Your task to perform on an android device: Go to network settings Image 0: 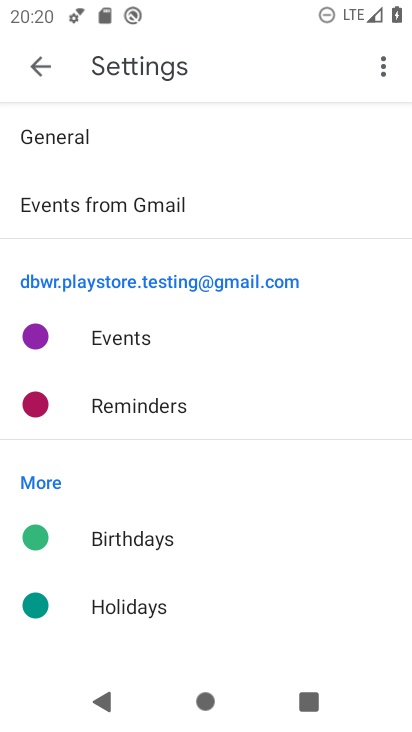
Step 0: press home button
Your task to perform on an android device: Go to network settings Image 1: 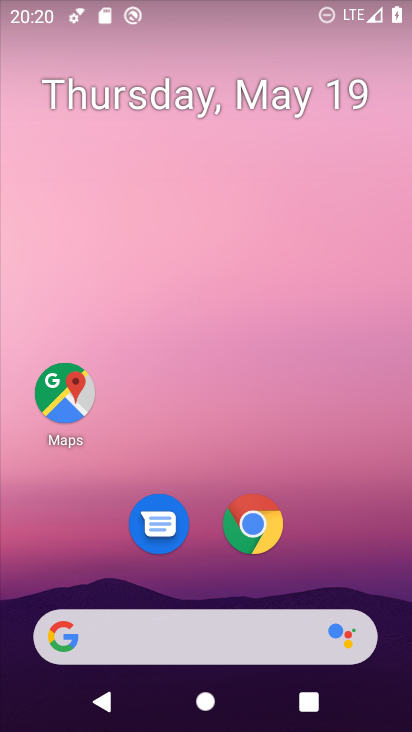
Step 1: drag from (323, 554) to (367, 83)
Your task to perform on an android device: Go to network settings Image 2: 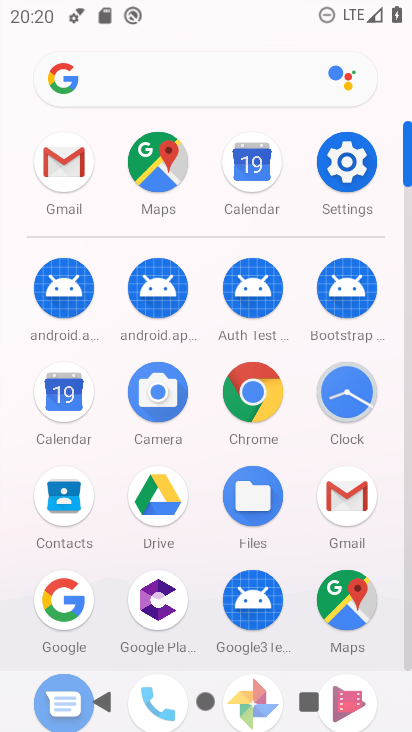
Step 2: click (347, 155)
Your task to perform on an android device: Go to network settings Image 3: 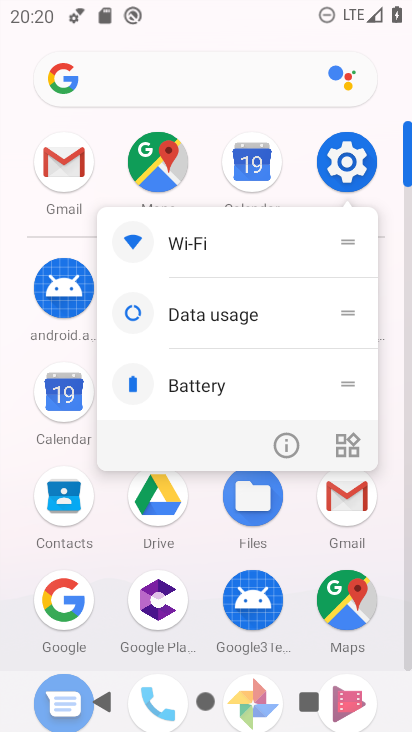
Step 3: click (347, 153)
Your task to perform on an android device: Go to network settings Image 4: 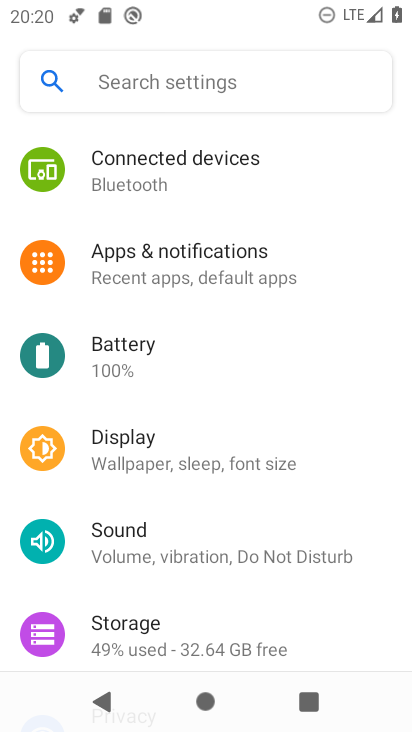
Step 4: drag from (206, 325) to (188, 628)
Your task to perform on an android device: Go to network settings Image 5: 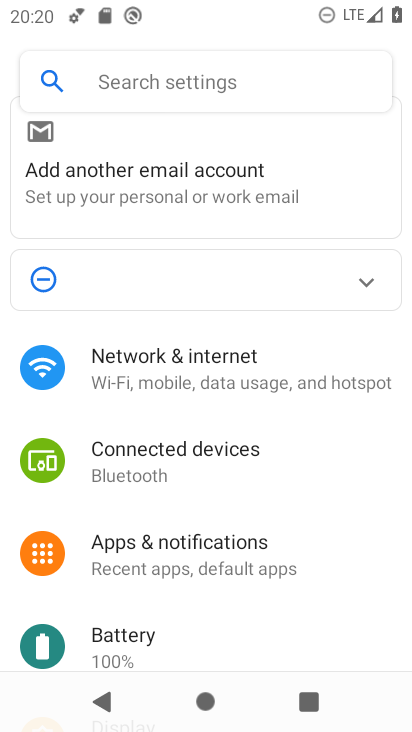
Step 5: click (191, 375)
Your task to perform on an android device: Go to network settings Image 6: 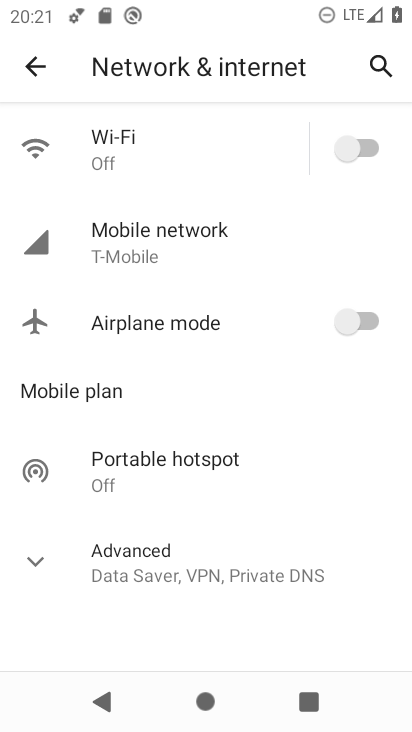
Step 6: click (33, 559)
Your task to perform on an android device: Go to network settings Image 7: 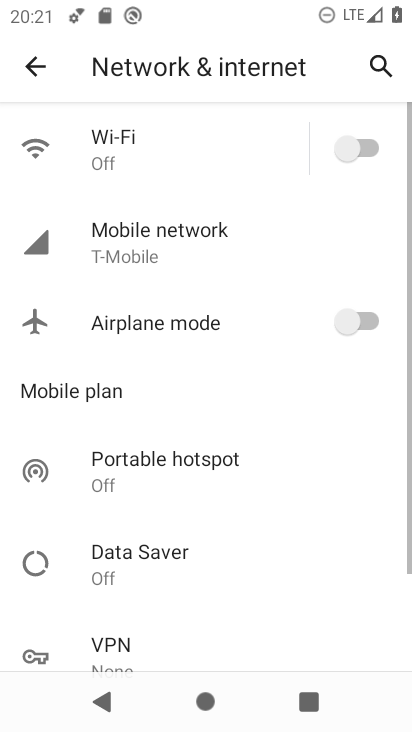
Step 7: task complete